Your task to perform on an android device: Show me popular videos on Youtube Image 0: 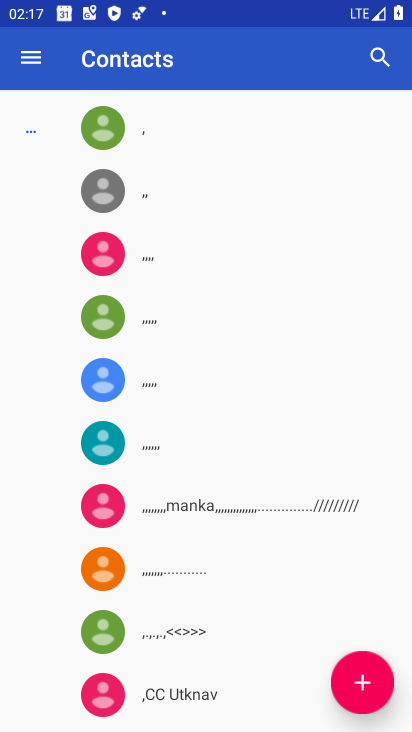
Step 0: press home button
Your task to perform on an android device: Show me popular videos on Youtube Image 1: 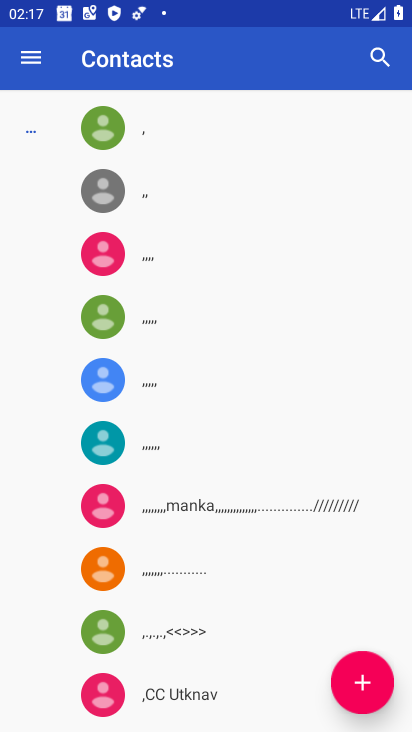
Step 1: press home button
Your task to perform on an android device: Show me popular videos on Youtube Image 2: 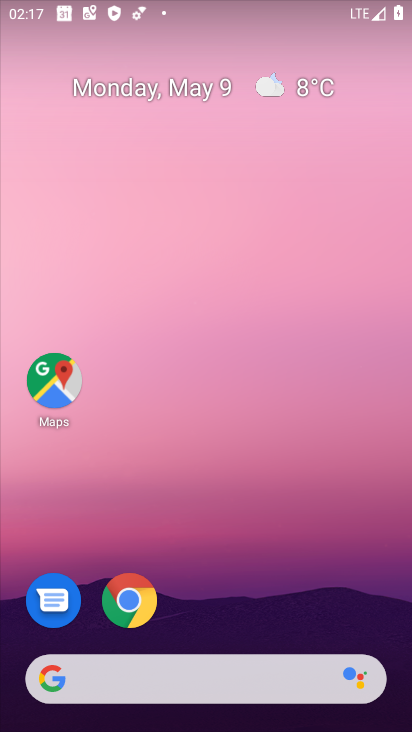
Step 2: drag from (198, 627) to (241, 195)
Your task to perform on an android device: Show me popular videos on Youtube Image 3: 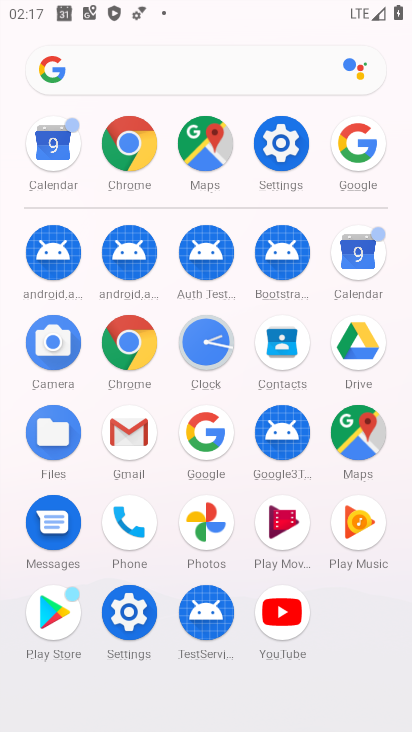
Step 3: click (279, 604)
Your task to perform on an android device: Show me popular videos on Youtube Image 4: 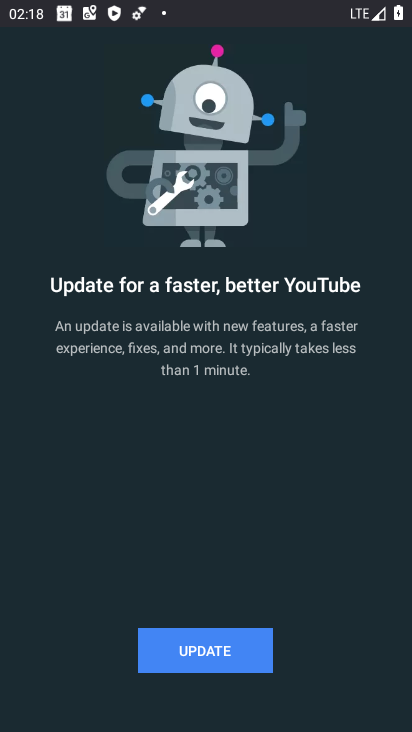
Step 4: click (198, 646)
Your task to perform on an android device: Show me popular videos on Youtube Image 5: 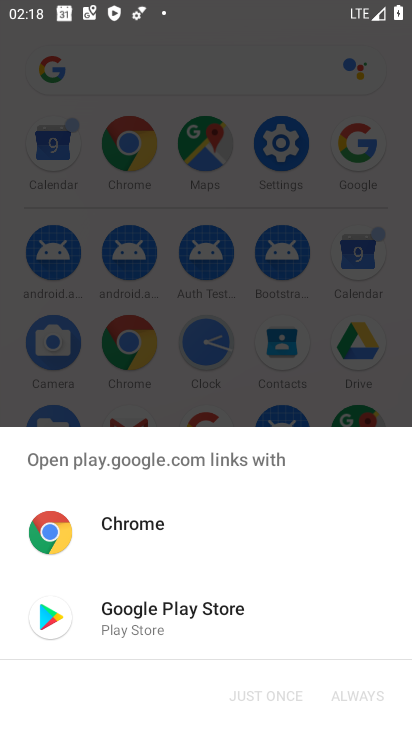
Step 5: click (162, 611)
Your task to perform on an android device: Show me popular videos on Youtube Image 6: 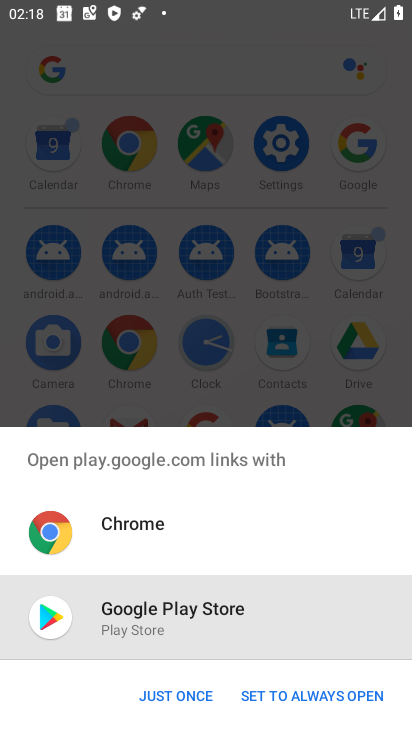
Step 6: click (174, 696)
Your task to perform on an android device: Show me popular videos on Youtube Image 7: 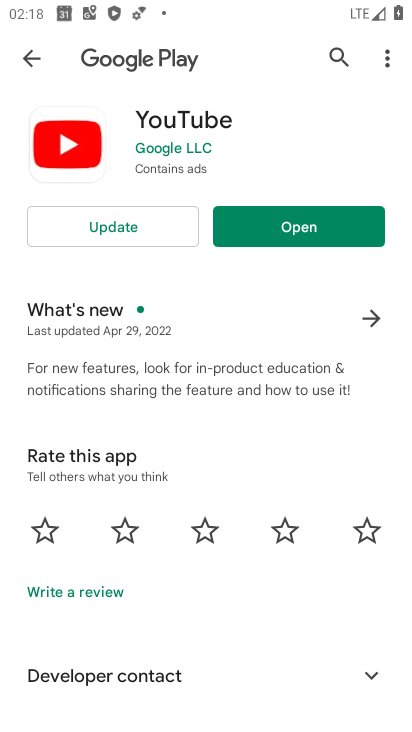
Step 7: click (110, 217)
Your task to perform on an android device: Show me popular videos on Youtube Image 8: 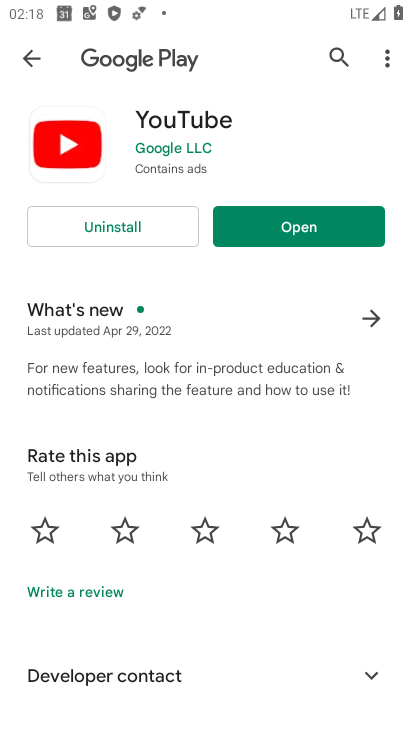
Step 8: click (298, 228)
Your task to perform on an android device: Show me popular videos on Youtube Image 9: 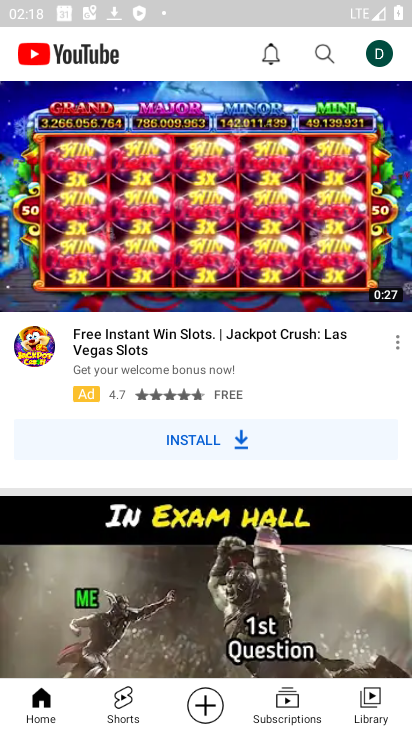
Step 9: drag from (203, 609) to (201, 205)
Your task to perform on an android device: Show me popular videos on Youtube Image 10: 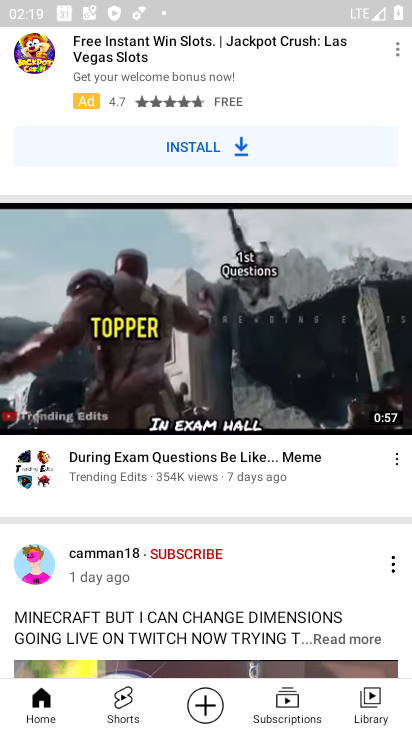
Step 10: drag from (202, 170) to (165, 678)
Your task to perform on an android device: Show me popular videos on Youtube Image 11: 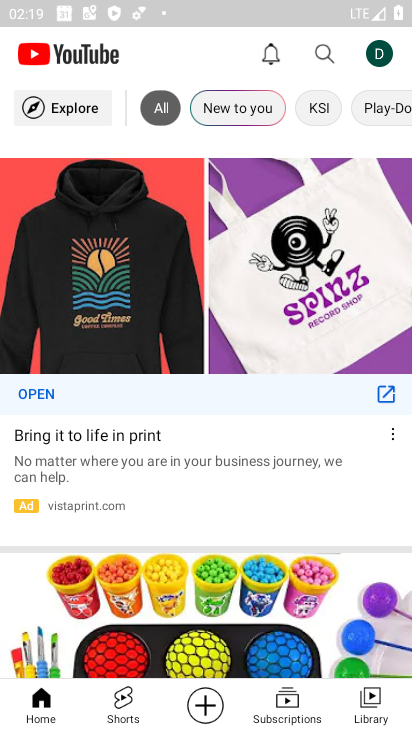
Step 11: click (38, 110)
Your task to perform on an android device: Show me popular videos on Youtube Image 12: 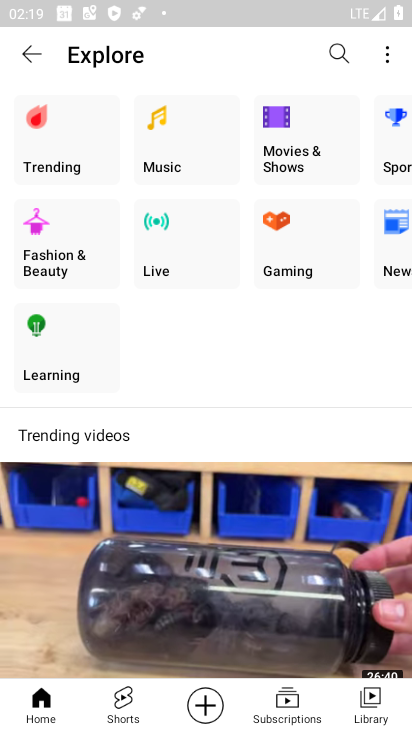
Step 12: click (53, 127)
Your task to perform on an android device: Show me popular videos on Youtube Image 13: 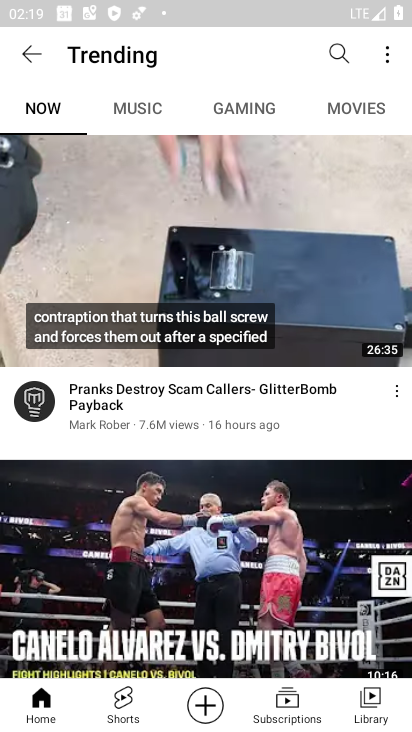
Step 13: task complete